Your task to perform on an android device: star an email in the gmail app Image 0: 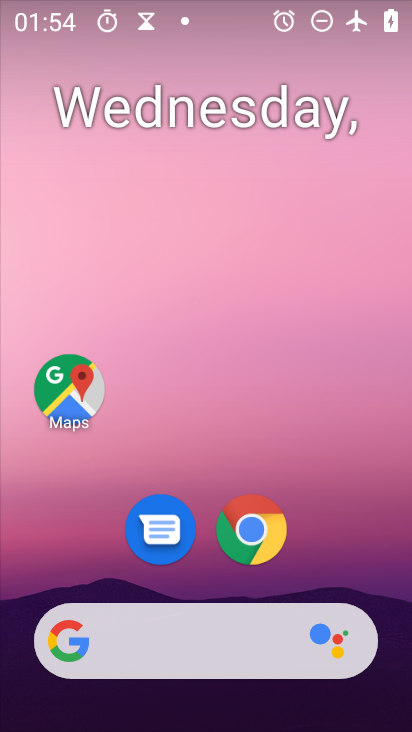
Step 0: drag from (314, 607) to (312, 21)
Your task to perform on an android device: star an email in the gmail app Image 1: 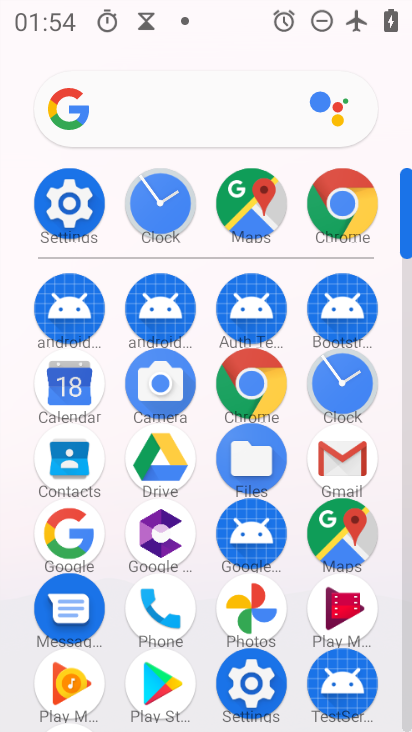
Step 1: click (348, 463)
Your task to perform on an android device: star an email in the gmail app Image 2: 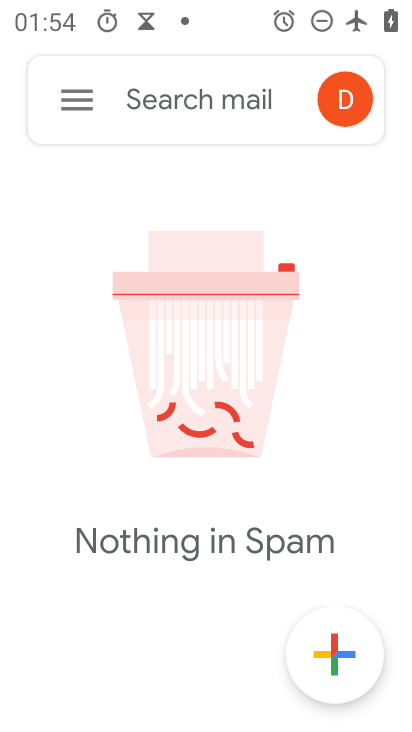
Step 2: click (62, 93)
Your task to perform on an android device: star an email in the gmail app Image 3: 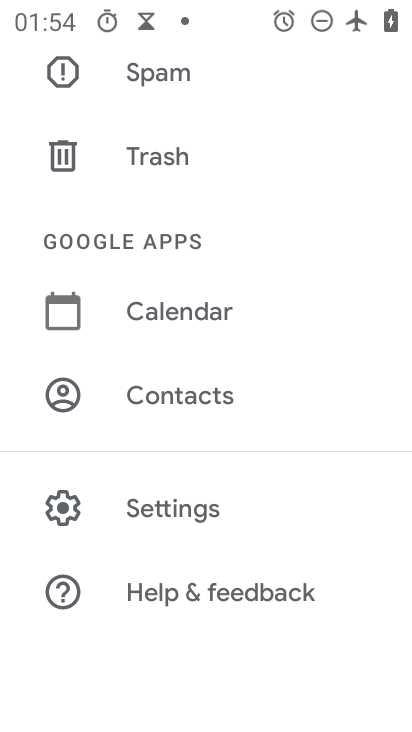
Step 3: drag from (201, 194) to (243, 579)
Your task to perform on an android device: star an email in the gmail app Image 4: 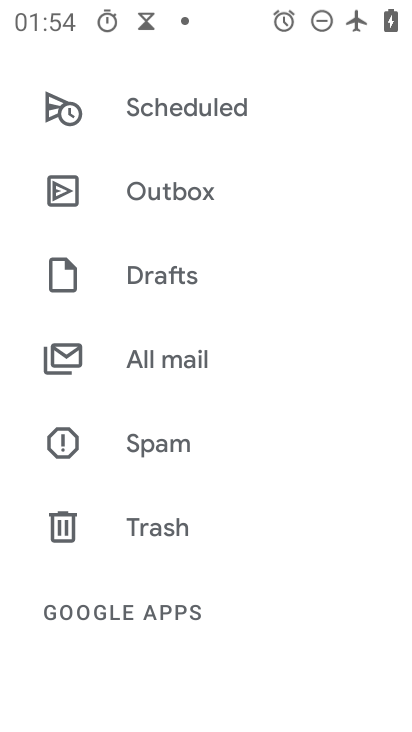
Step 4: drag from (212, 169) to (243, 585)
Your task to perform on an android device: star an email in the gmail app Image 5: 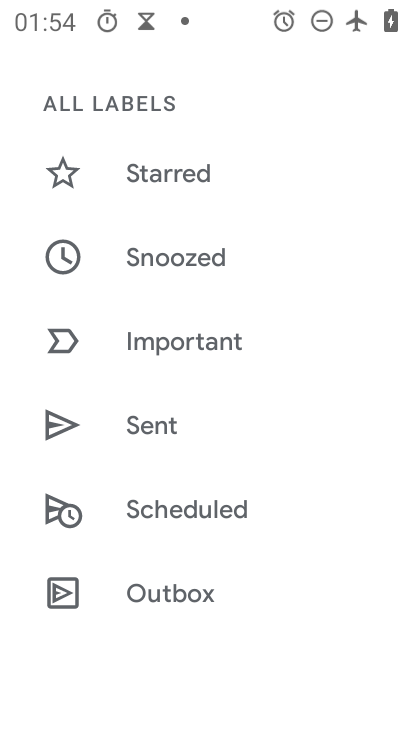
Step 5: click (177, 167)
Your task to perform on an android device: star an email in the gmail app Image 6: 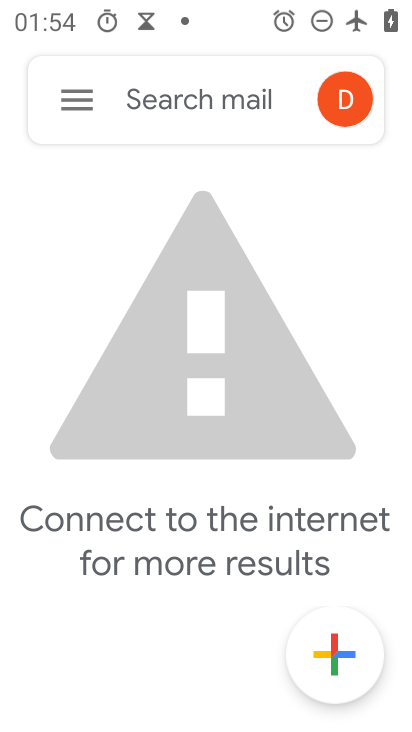
Step 6: task complete